Your task to perform on an android device: Go to internet settings Image 0: 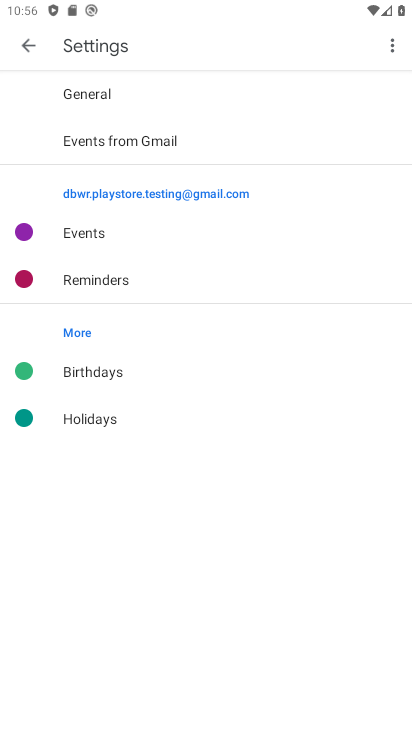
Step 0: press home button
Your task to perform on an android device: Go to internet settings Image 1: 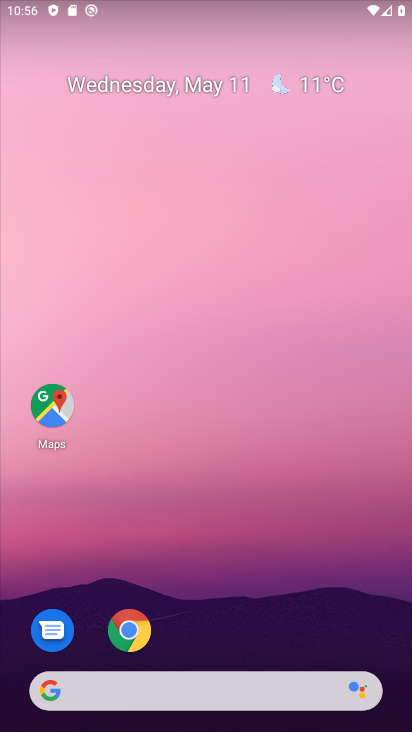
Step 1: drag from (192, 649) to (209, 309)
Your task to perform on an android device: Go to internet settings Image 2: 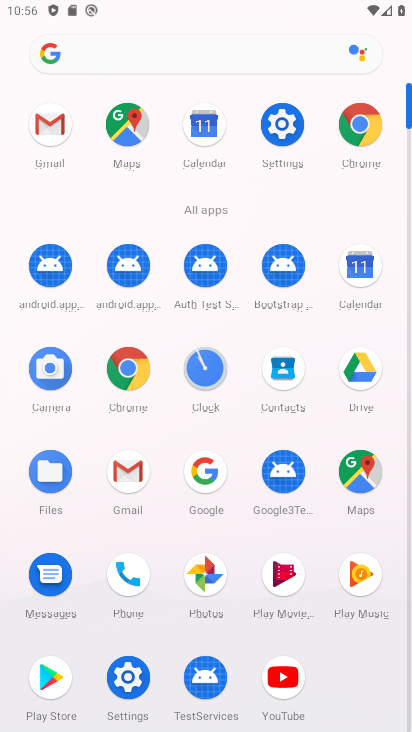
Step 2: click (123, 673)
Your task to perform on an android device: Go to internet settings Image 3: 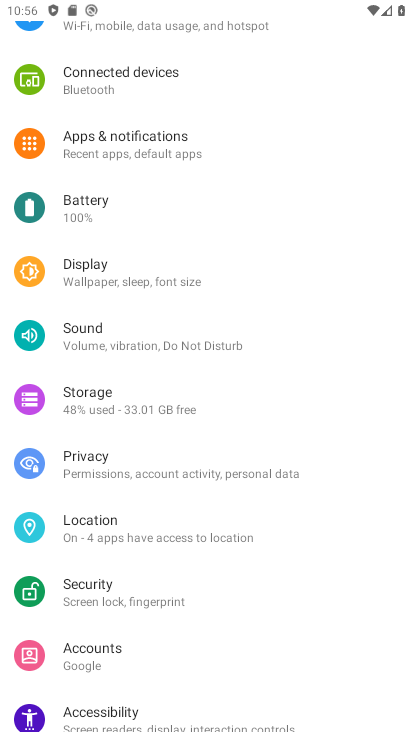
Step 3: drag from (199, 121) to (250, 492)
Your task to perform on an android device: Go to internet settings Image 4: 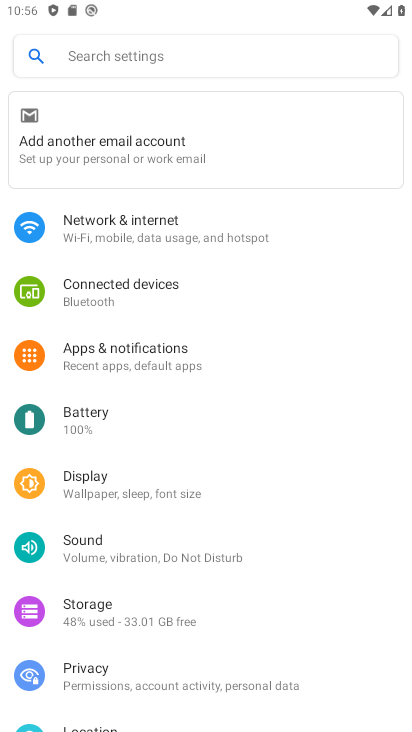
Step 4: click (143, 232)
Your task to perform on an android device: Go to internet settings Image 5: 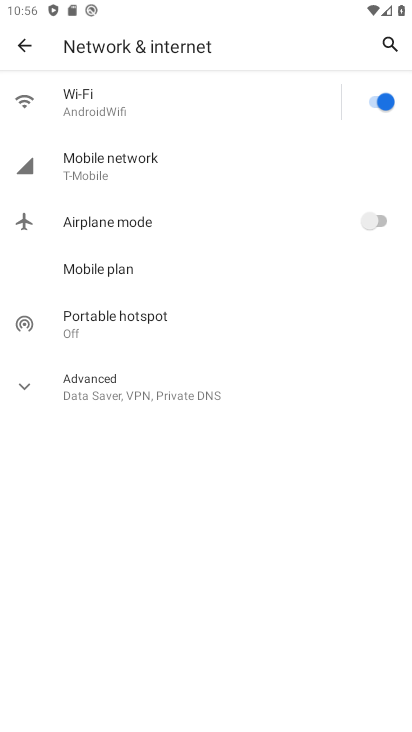
Step 5: task complete